Your task to perform on an android device: add a contact in the contacts app Image 0: 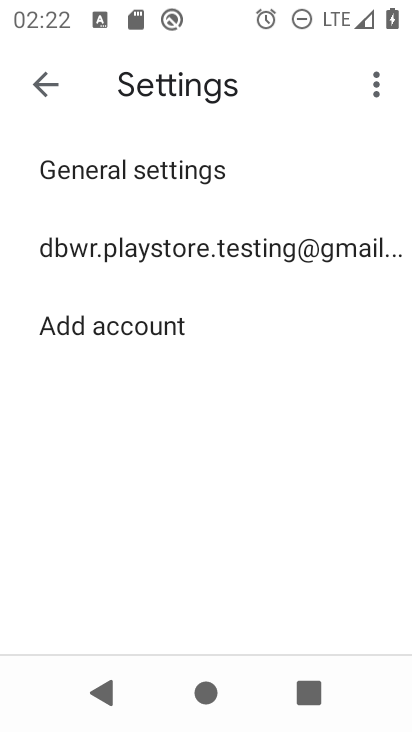
Step 0: press home button
Your task to perform on an android device: add a contact in the contacts app Image 1: 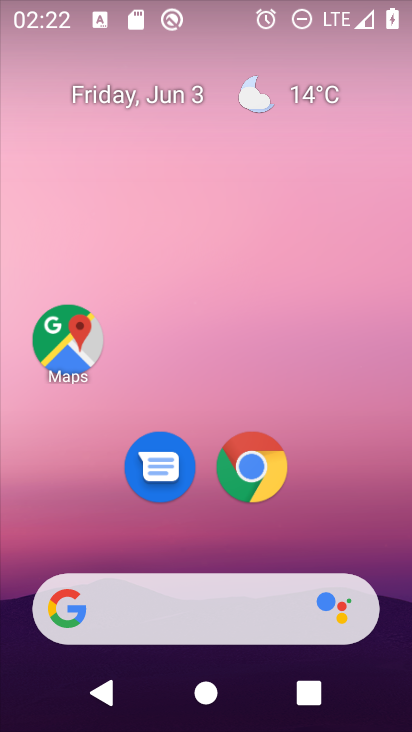
Step 1: drag from (401, 646) to (338, 122)
Your task to perform on an android device: add a contact in the contacts app Image 2: 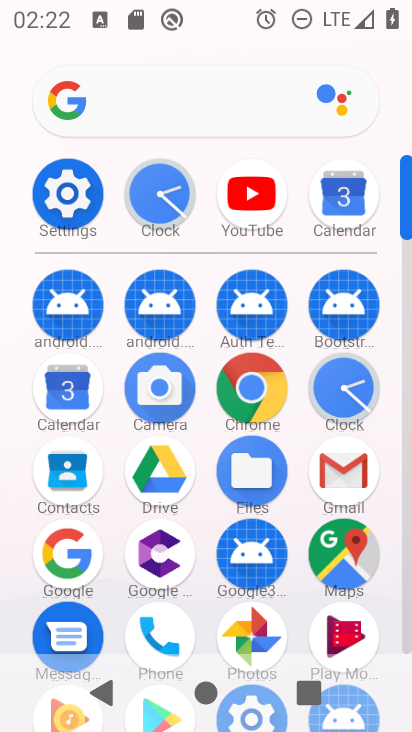
Step 2: click (406, 640)
Your task to perform on an android device: add a contact in the contacts app Image 3: 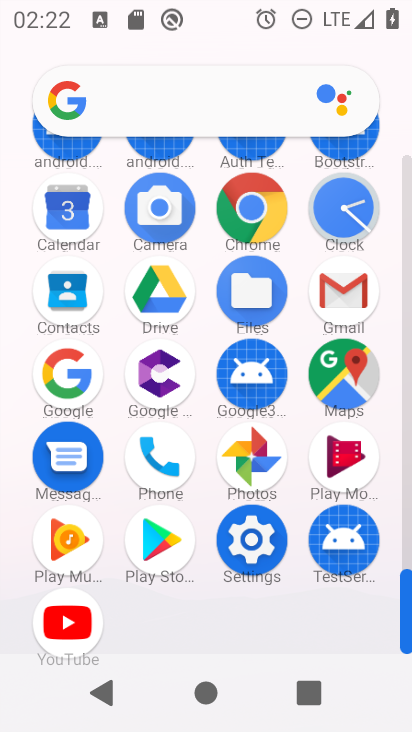
Step 3: click (66, 213)
Your task to perform on an android device: add a contact in the contacts app Image 4: 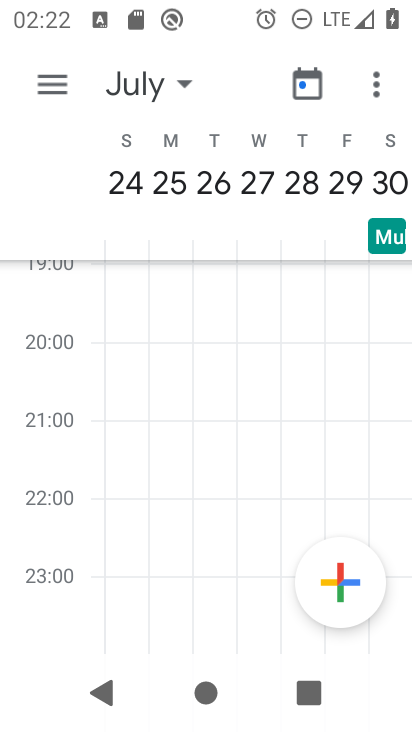
Step 4: press home button
Your task to perform on an android device: add a contact in the contacts app Image 5: 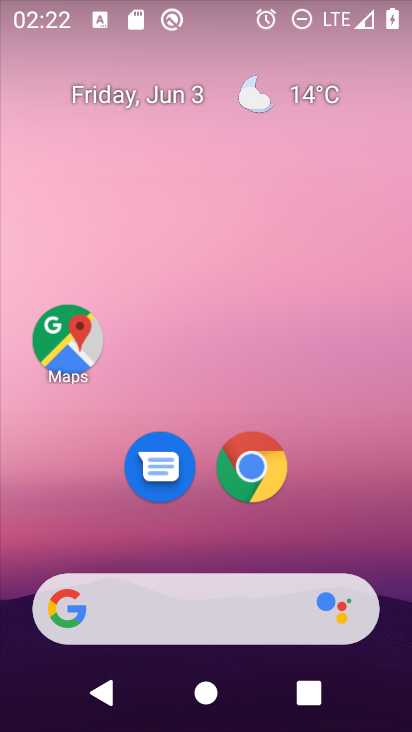
Step 5: drag from (397, 615) to (374, 113)
Your task to perform on an android device: add a contact in the contacts app Image 6: 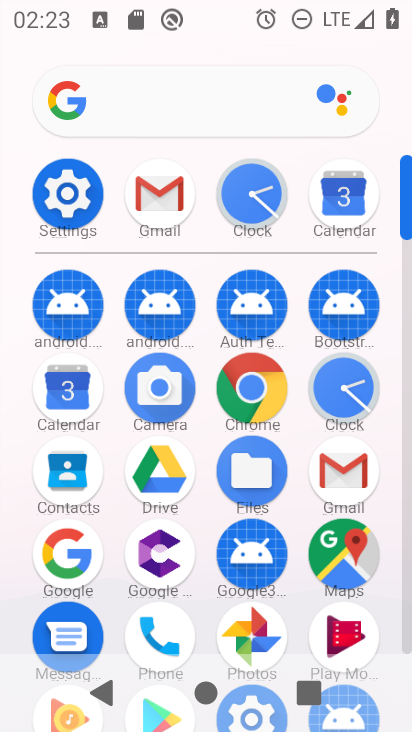
Step 6: click (69, 473)
Your task to perform on an android device: add a contact in the contacts app Image 7: 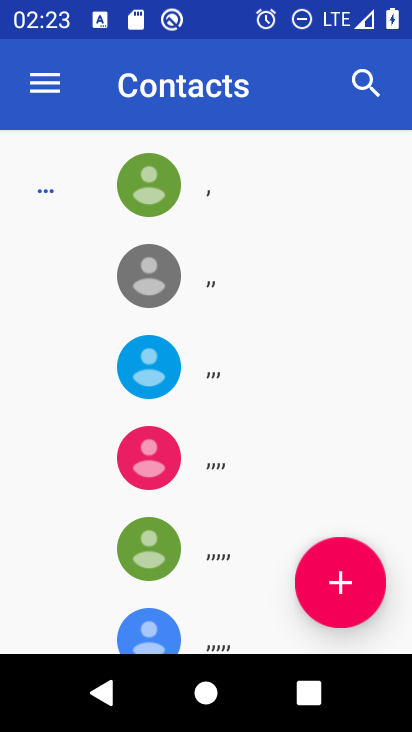
Step 7: click (339, 582)
Your task to perform on an android device: add a contact in the contacts app Image 8: 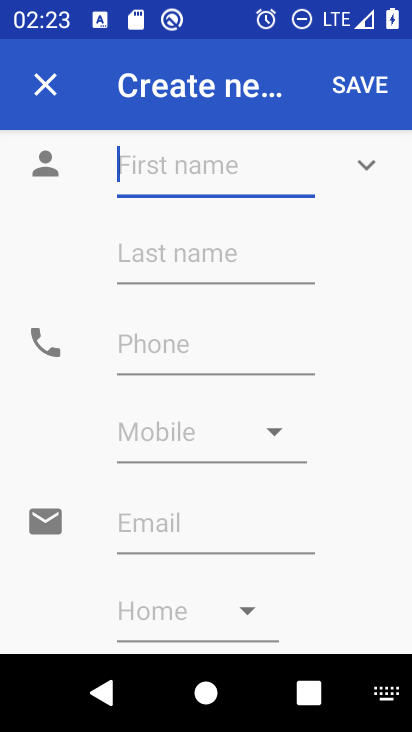
Step 8: type "poiuytre"
Your task to perform on an android device: add a contact in the contacts app Image 9: 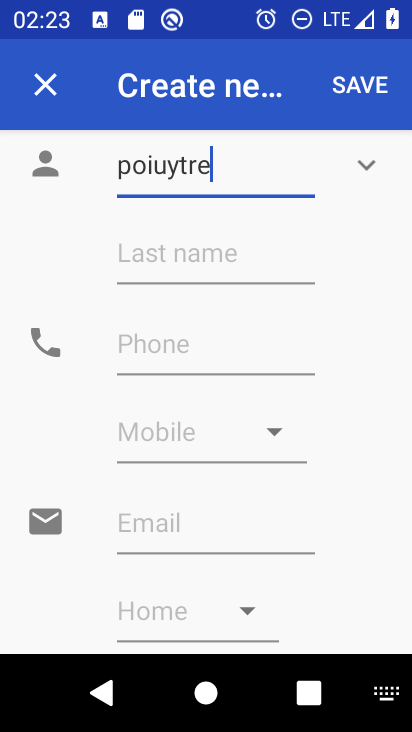
Step 9: type ""
Your task to perform on an android device: add a contact in the contacts app Image 10: 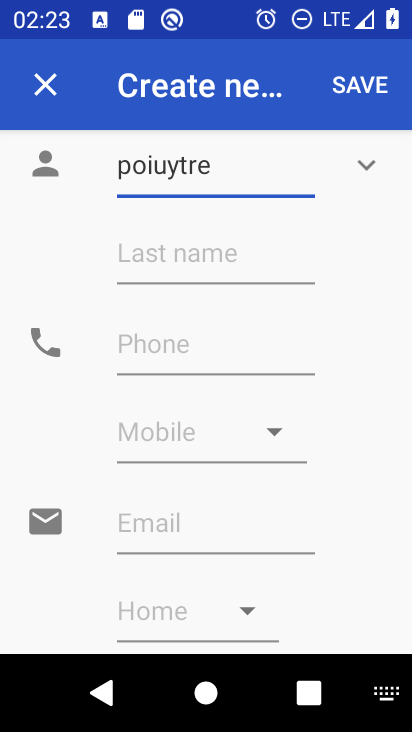
Step 10: click (156, 352)
Your task to perform on an android device: add a contact in the contacts app Image 11: 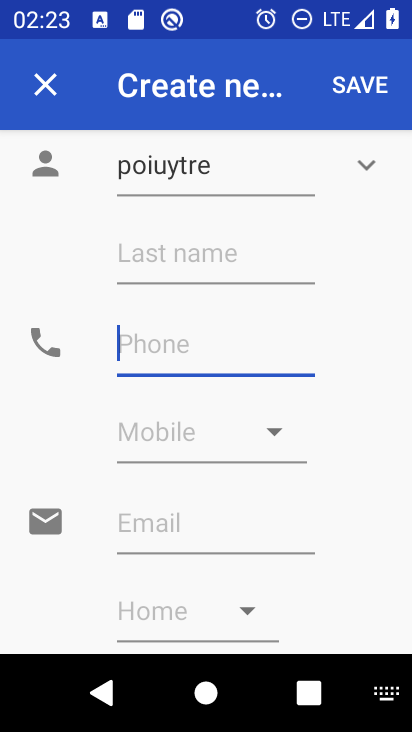
Step 11: type "0987654"
Your task to perform on an android device: add a contact in the contacts app Image 12: 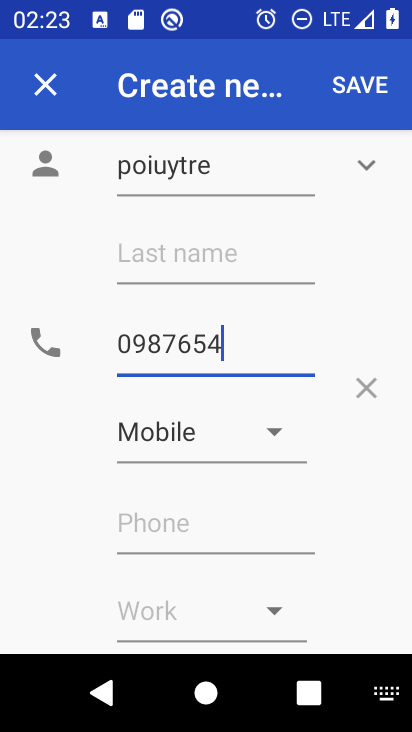
Step 12: click (276, 436)
Your task to perform on an android device: add a contact in the contacts app Image 13: 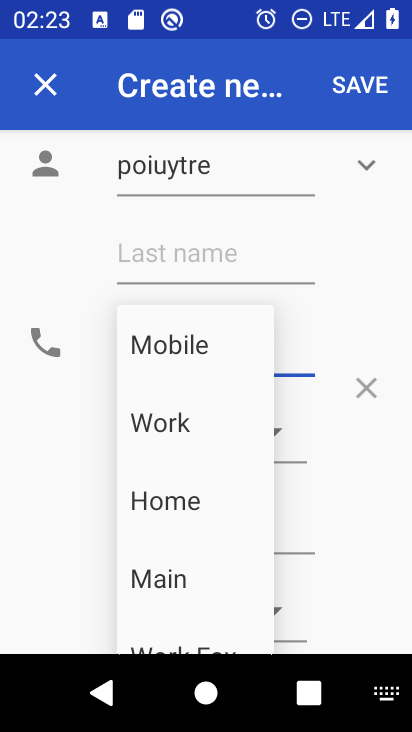
Step 13: click (153, 421)
Your task to perform on an android device: add a contact in the contacts app Image 14: 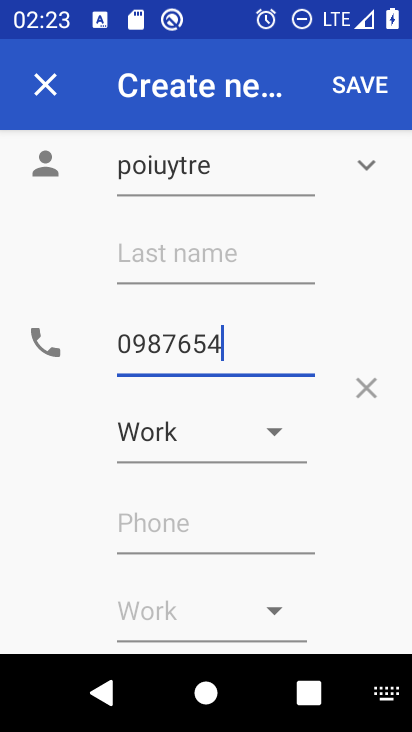
Step 14: click (355, 82)
Your task to perform on an android device: add a contact in the contacts app Image 15: 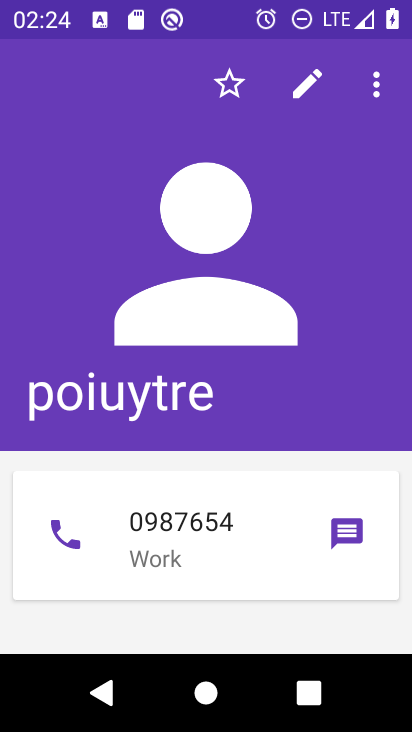
Step 15: task complete